Your task to perform on an android device: Open ESPN.com Image 0: 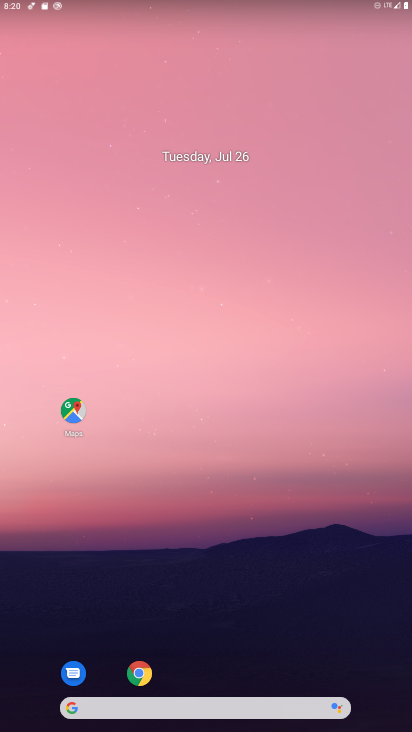
Step 0: drag from (364, 612) to (201, 2)
Your task to perform on an android device: Open ESPN.com Image 1: 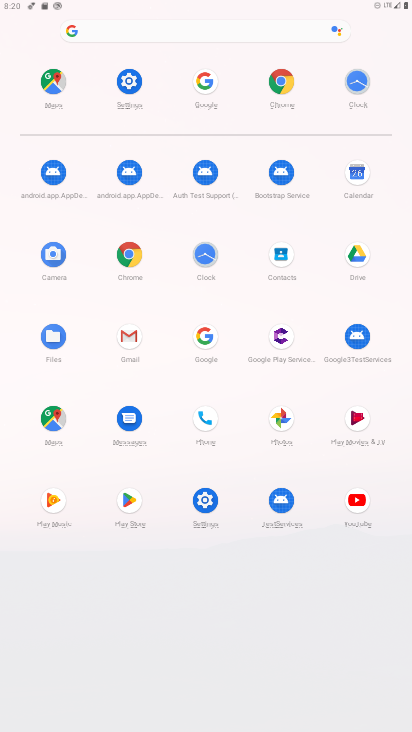
Step 1: click (214, 329)
Your task to perform on an android device: Open ESPN.com Image 2: 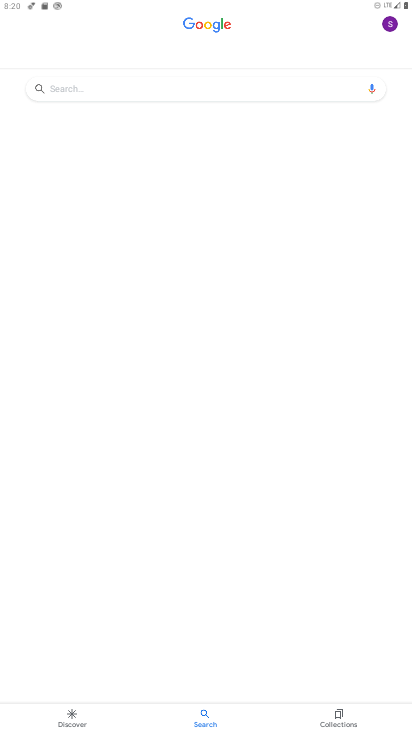
Step 2: click (88, 83)
Your task to perform on an android device: Open ESPN.com Image 3: 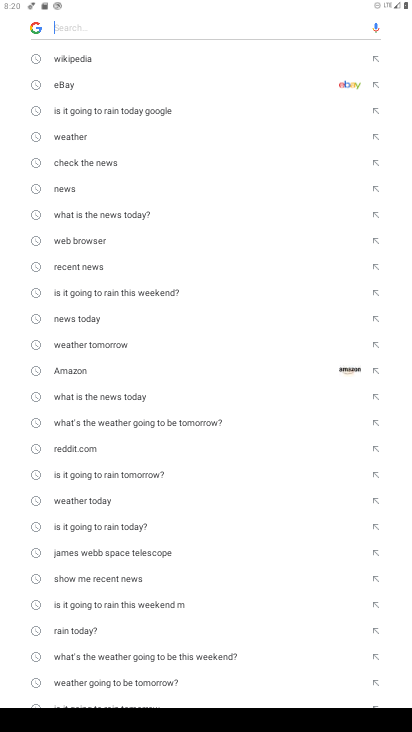
Step 3: type " ESPN.com"
Your task to perform on an android device: Open ESPN.com Image 4: 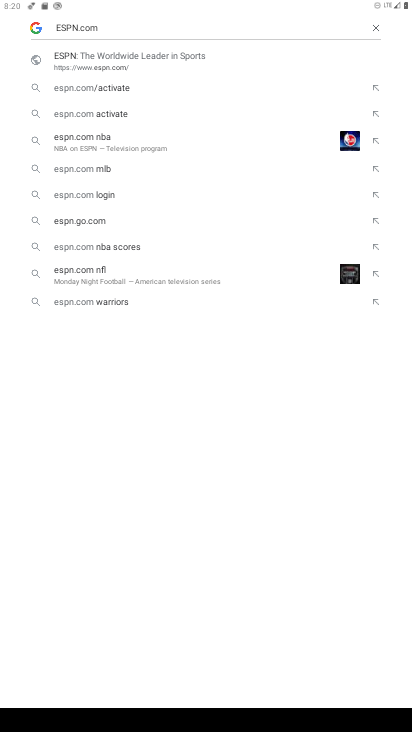
Step 4: click (126, 66)
Your task to perform on an android device: Open ESPN.com Image 5: 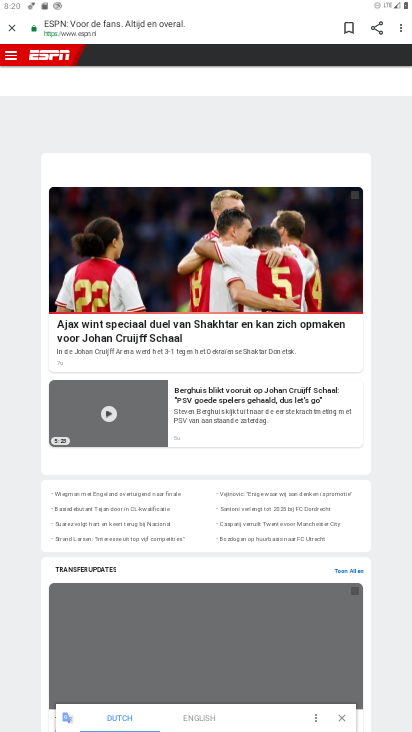
Step 5: task complete